Your task to perform on an android device: Play the last video I watched on Youtube Image 0: 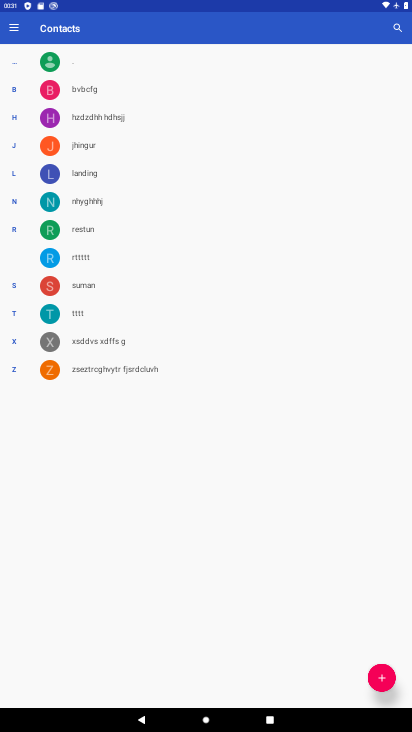
Step 0: press home button
Your task to perform on an android device: Play the last video I watched on Youtube Image 1: 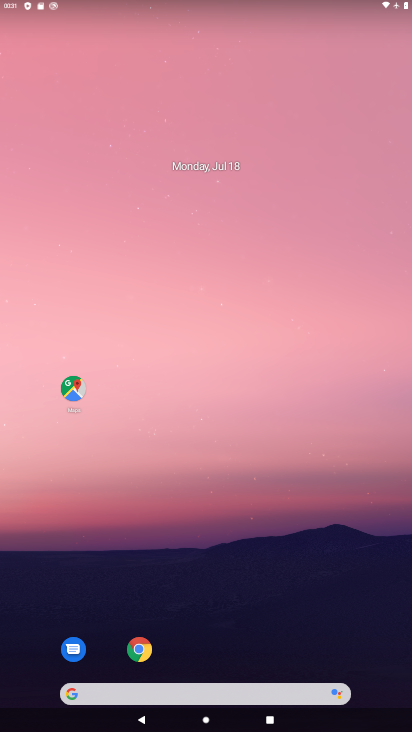
Step 1: drag from (189, 605) to (218, 172)
Your task to perform on an android device: Play the last video I watched on Youtube Image 2: 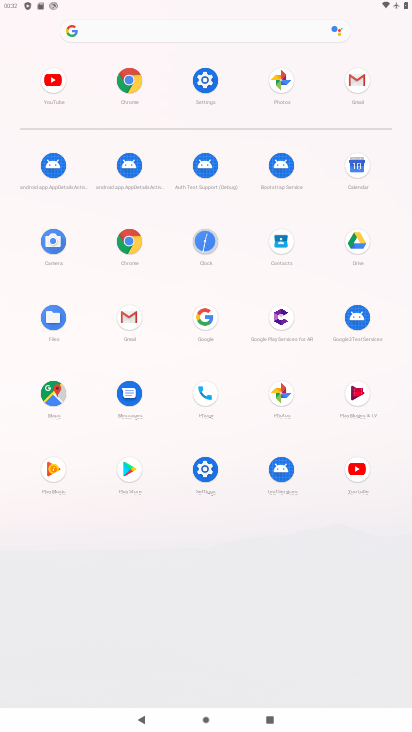
Step 2: click (355, 476)
Your task to perform on an android device: Play the last video I watched on Youtube Image 3: 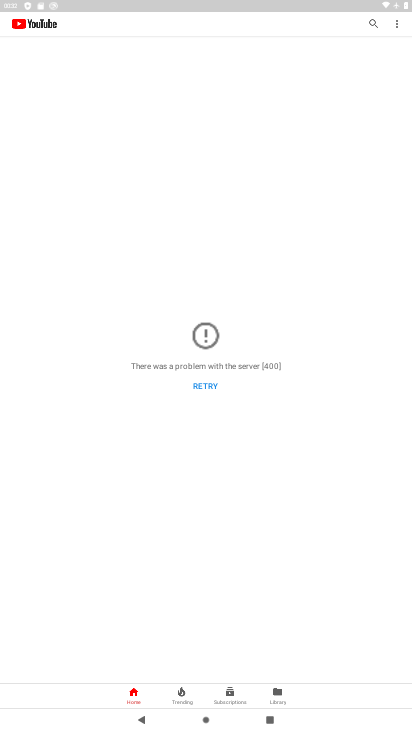
Step 3: click (272, 698)
Your task to perform on an android device: Play the last video I watched on Youtube Image 4: 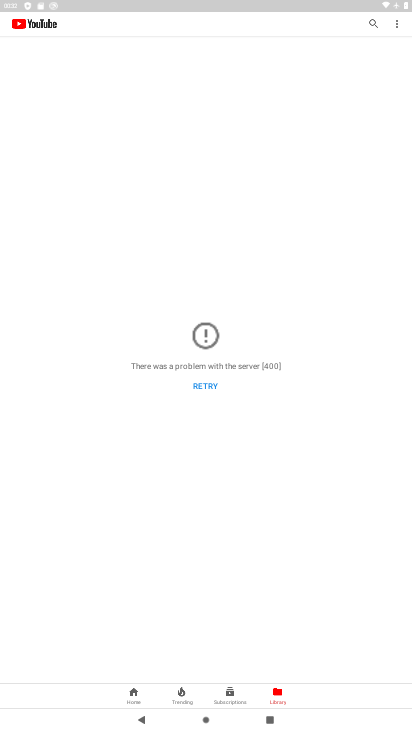
Step 4: task complete